Your task to perform on an android device: check storage Image 0: 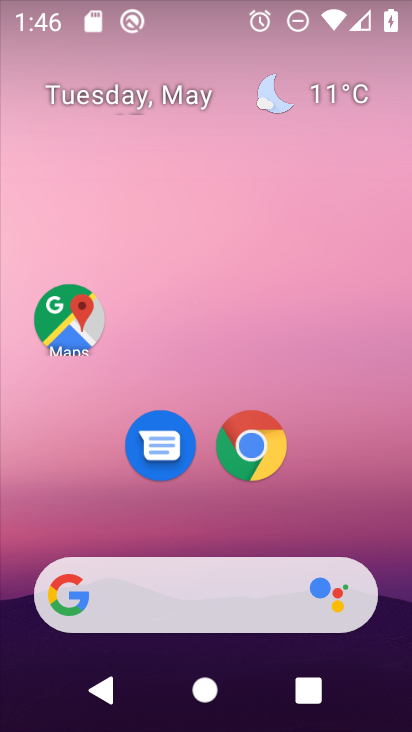
Step 0: drag from (384, 498) to (318, 112)
Your task to perform on an android device: check storage Image 1: 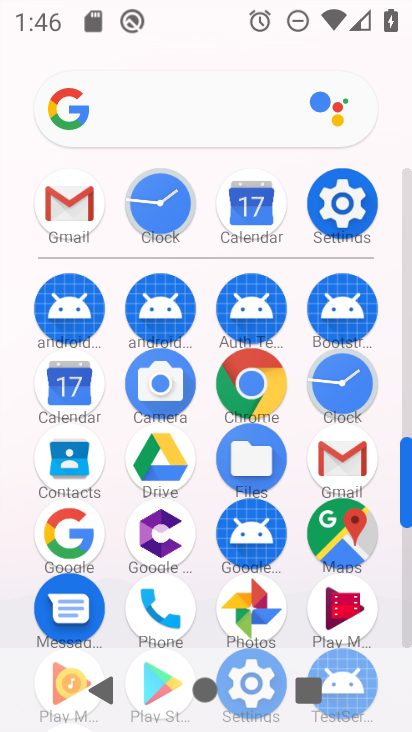
Step 1: click (331, 193)
Your task to perform on an android device: check storage Image 2: 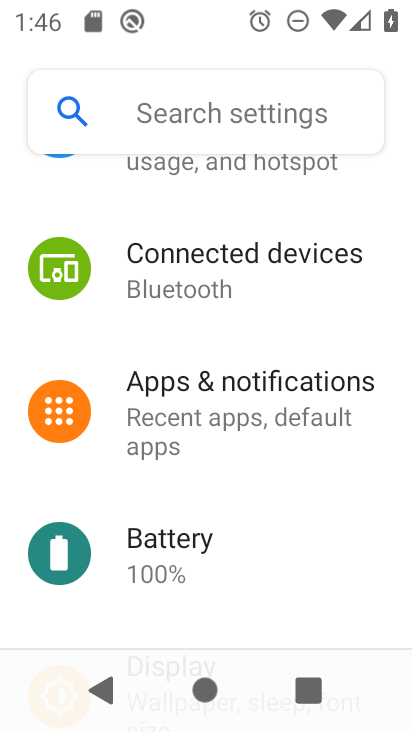
Step 2: drag from (272, 606) to (269, 168)
Your task to perform on an android device: check storage Image 3: 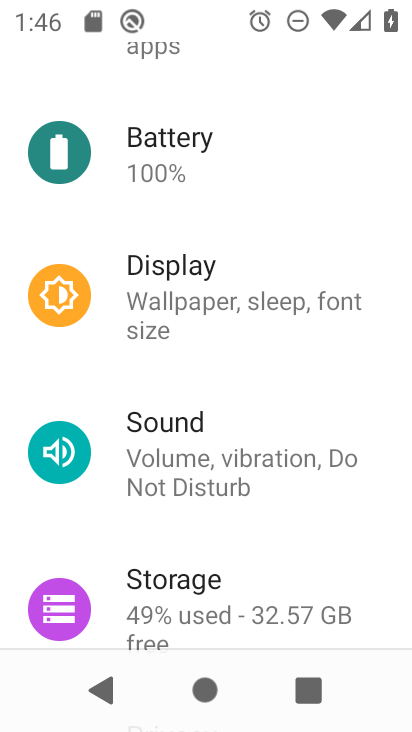
Step 3: drag from (222, 532) to (228, 174)
Your task to perform on an android device: check storage Image 4: 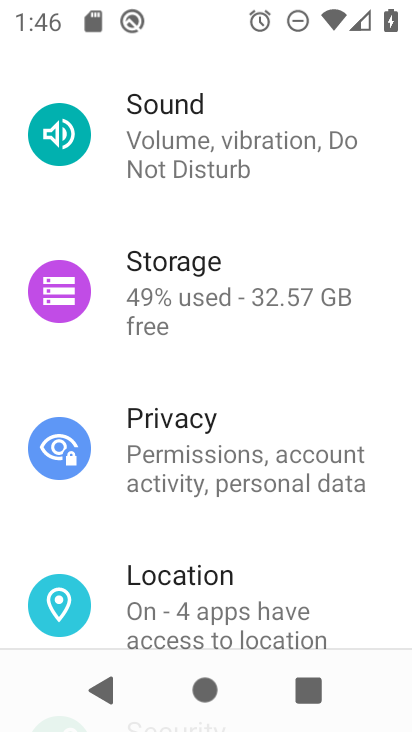
Step 4: click (308, 283)
Your task to perform on an android device: check storage Image 5: 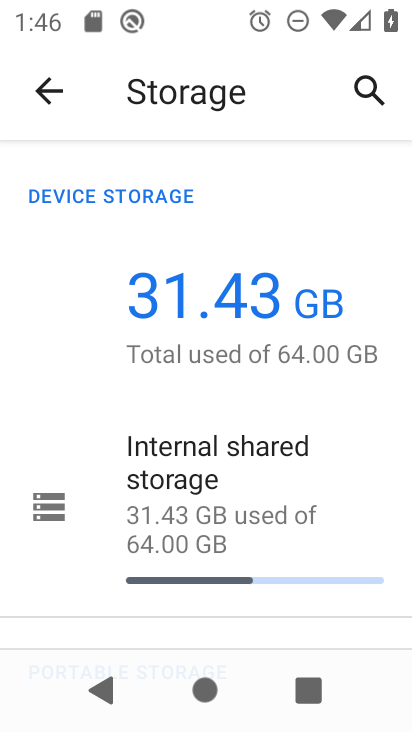
Step 5: task complete